Your task to perform on an android device: What is the news today? Image 0: 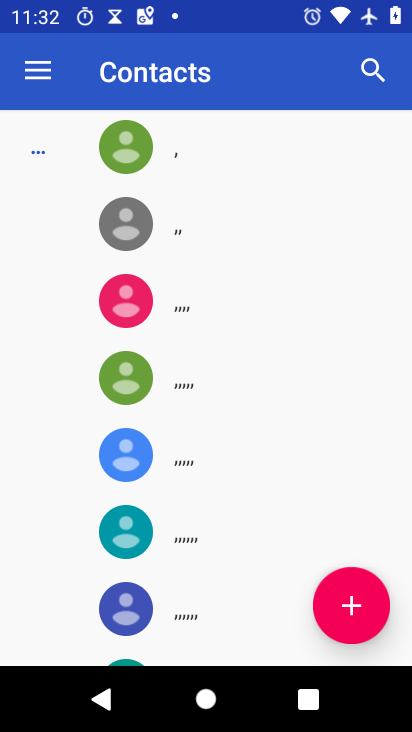
Step 0: press back button
Your task to perform on an android device: What is the news today? Image 1: 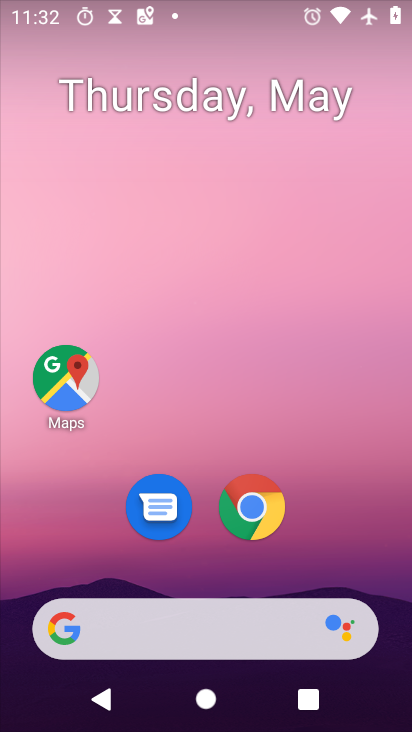
Step 1: drag from (329, 551) to (246, 9)
Your task to perform on an android device: What is the news today? Image 2: 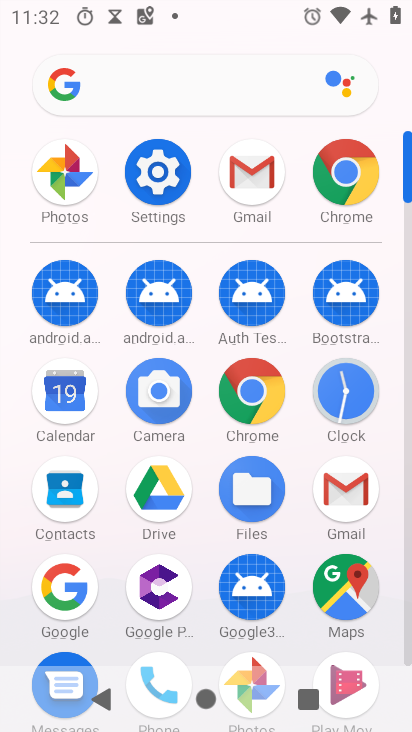
Step 2: drag from (15, 569) to (6, 231)
Your task to perform on an android device: What is the news today? Image 3: 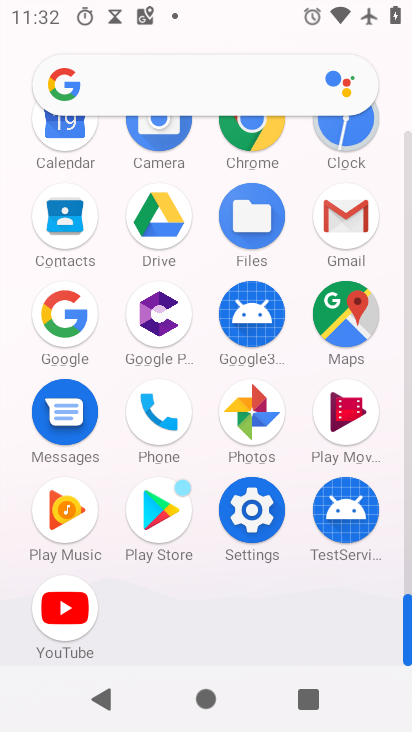
Step 3: click (248, 127)
Your task to perform on an android device: What is the news today? Image 4: 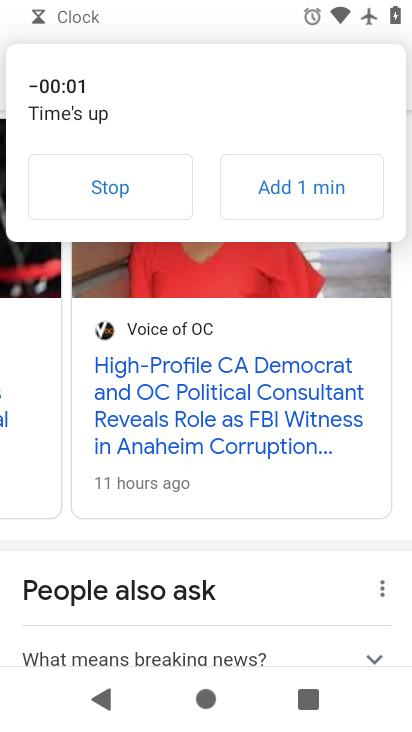
Step 4: click (117, 191)
Your task to perform on an android device: What is the news today? Image 5: 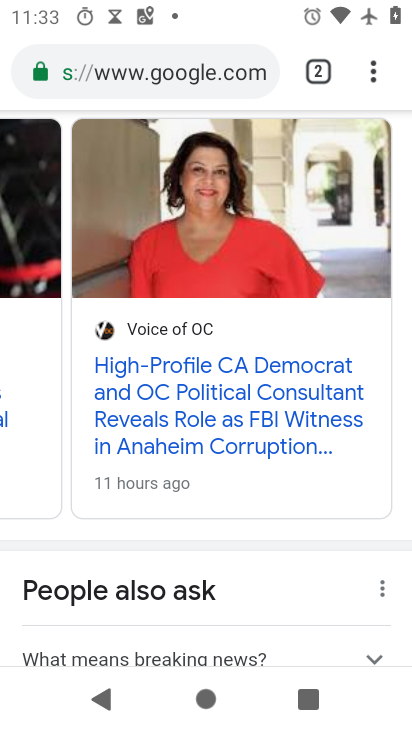
Step 5: task complete